Your task to perform on an android device: Open Amazon Image 0: 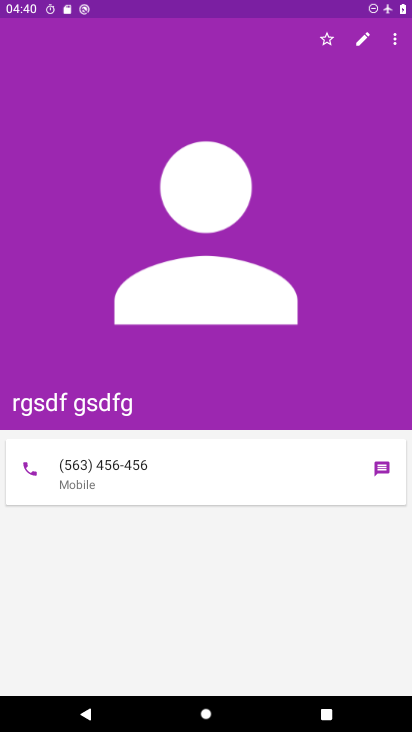
Step 0: press home button
Your task to perform on an android device: Open Amazon Image 1: 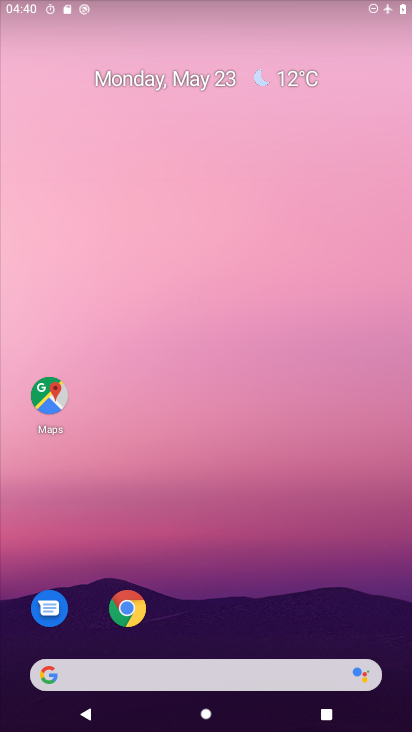
Step 1: click (128, 607)
Your task to perform on an android device: Open Amazon Image 2: 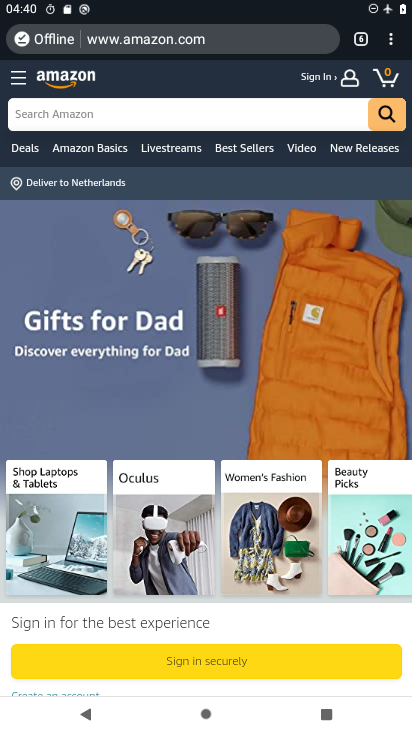
Step 2: task complete